Your task to perform on an android device: delete a single message in the gmail app Image 0: 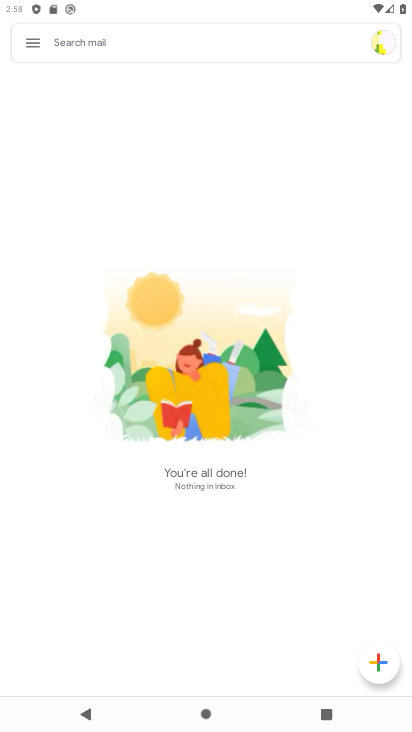
Step 0: press home button
Your task to perform on an android device: delete a single message in the gmail app Image 1: 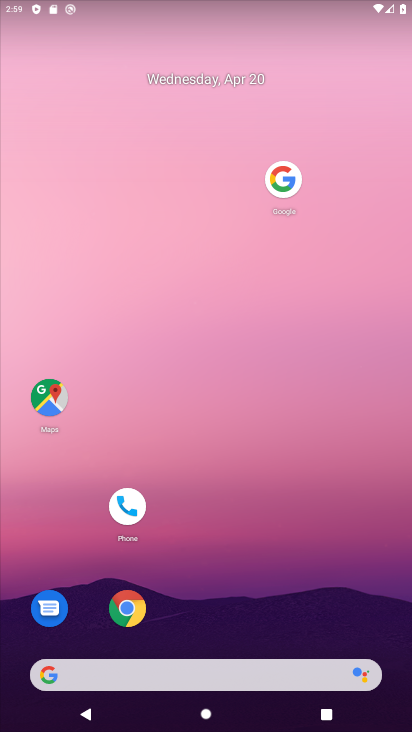
Step 1: drag from (207, 600) to (263, 41)
Your task to perform on an android device: delete a single message in the gmail app Image 2: 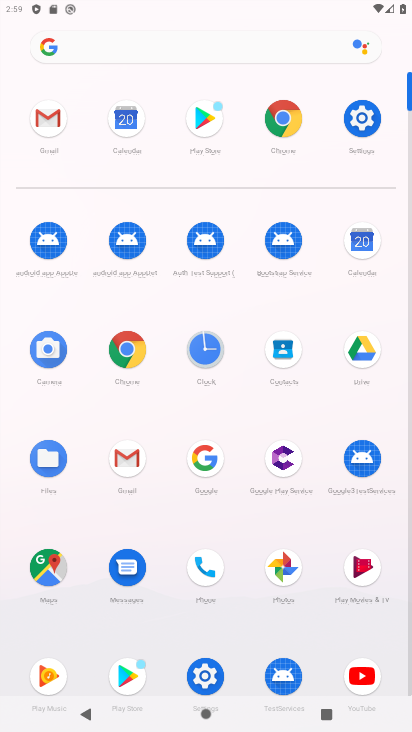
Step 2: click (42, 116)
Your task to perform on an android device: delete a single message in the gmail app Image 3: 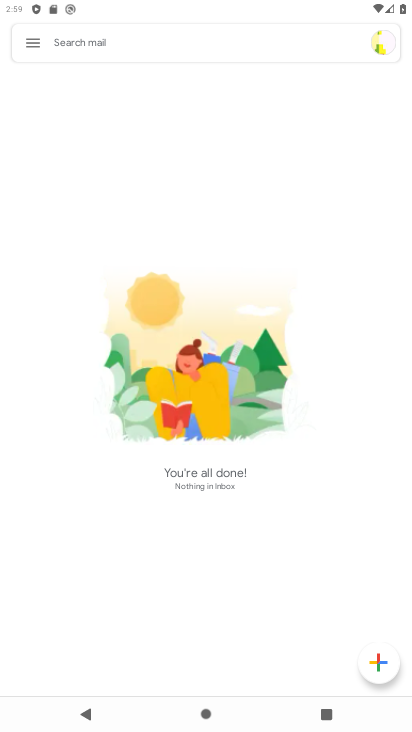
Step 3: click (26, 47)
Your task to perform on an android device: delete a single message in the gmail app Image 4: 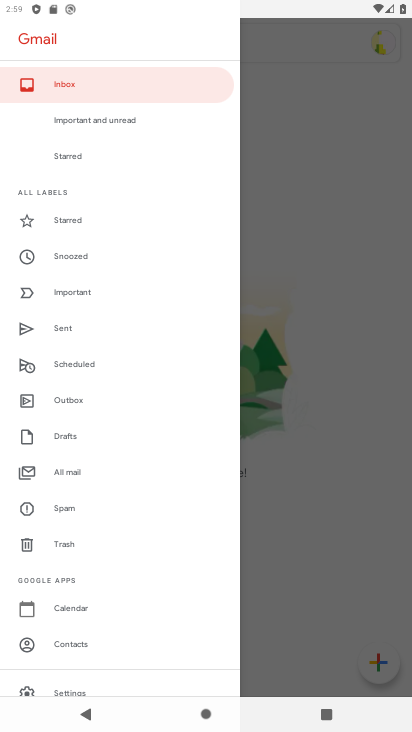
Step 4: click (78, 472)
Your task to perform on an android device: delete a single message in the gmail app Image 5: 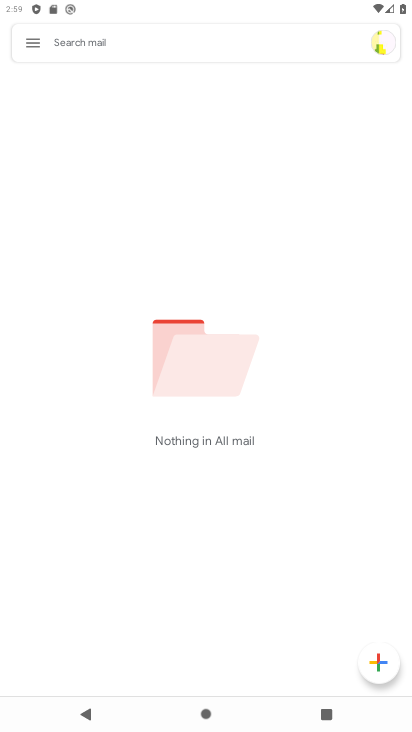
Step 5: task complete